Your task to perform on an android device: open a new tab in the chrome app Image 0: 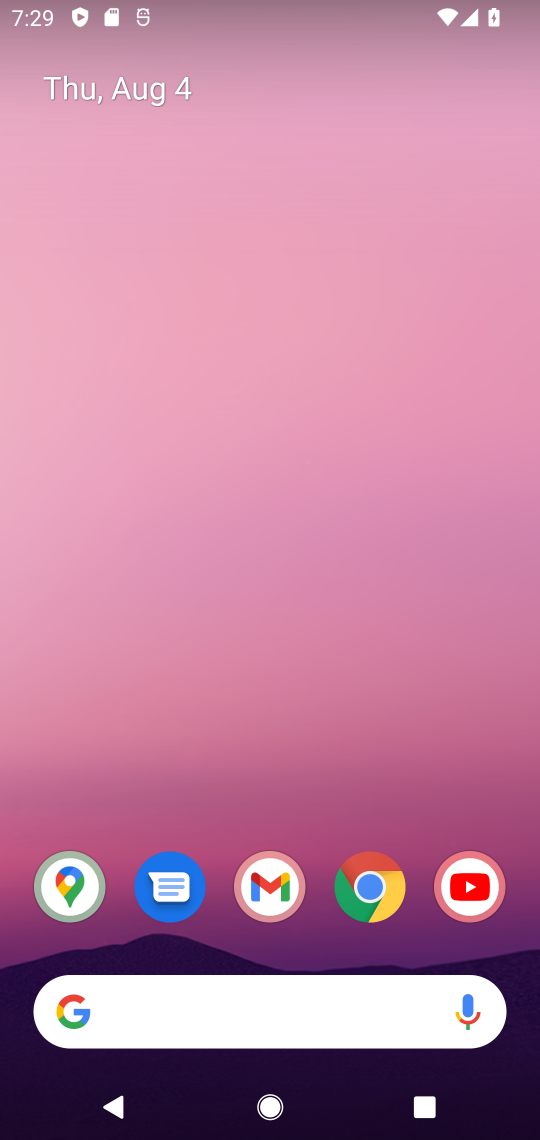
Step 0: click (379, 876)
Your task to perform on an android device: open a new tab in the chrome app Image 1: 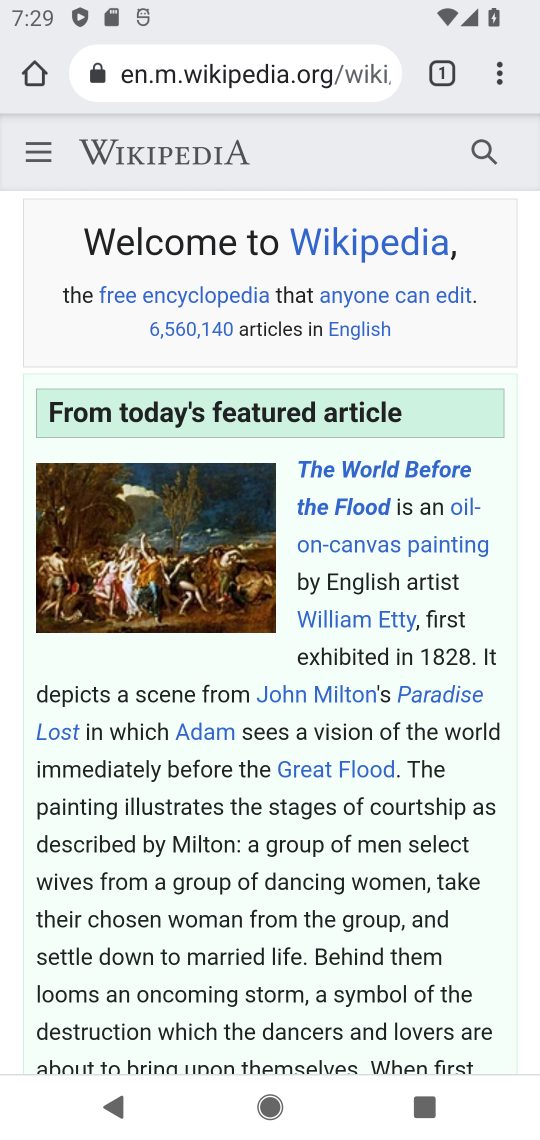
Step 1: click (489, 159)
Your task to perform on an android device: open a new tab in the chrome app Image 2: 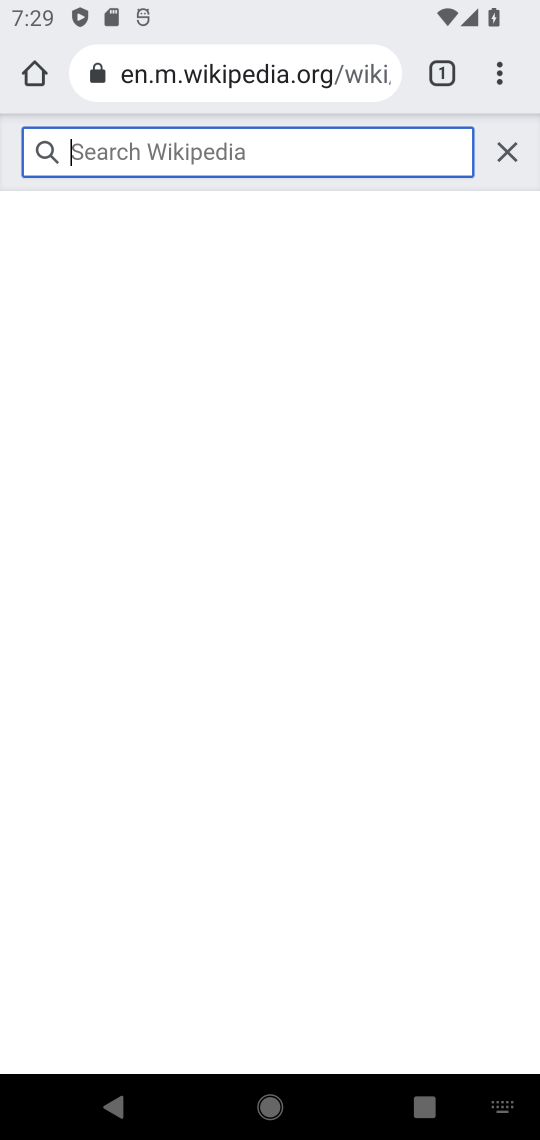
Step 2: click (498, 74)
Your task to perform on an android device: open a new tab in the chrome app Image 3: 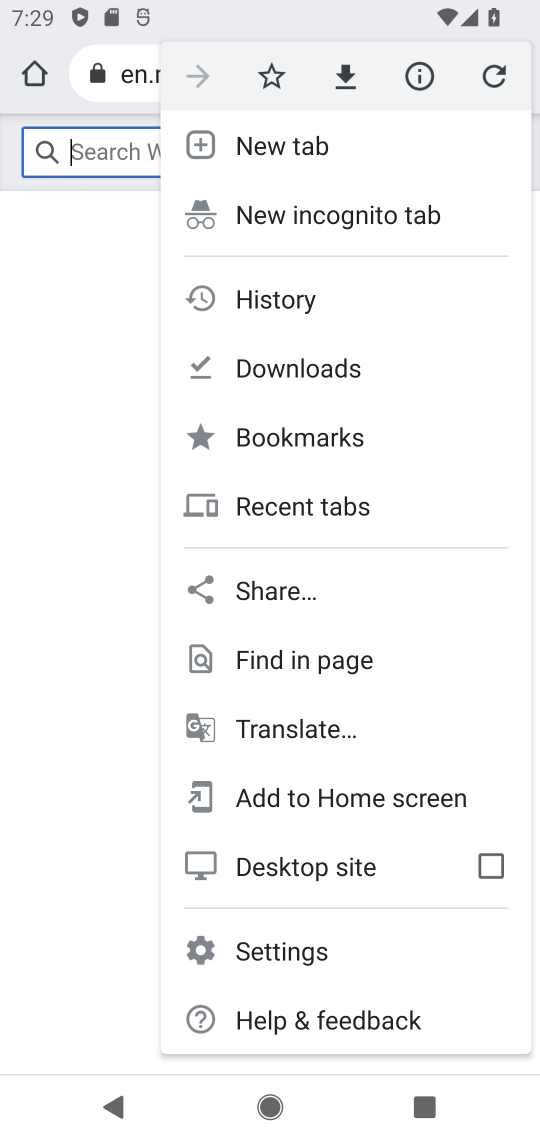
Step 3: click (246, 150)
Your task to perform on an android device: open a new tab in the chrome app Image 4: 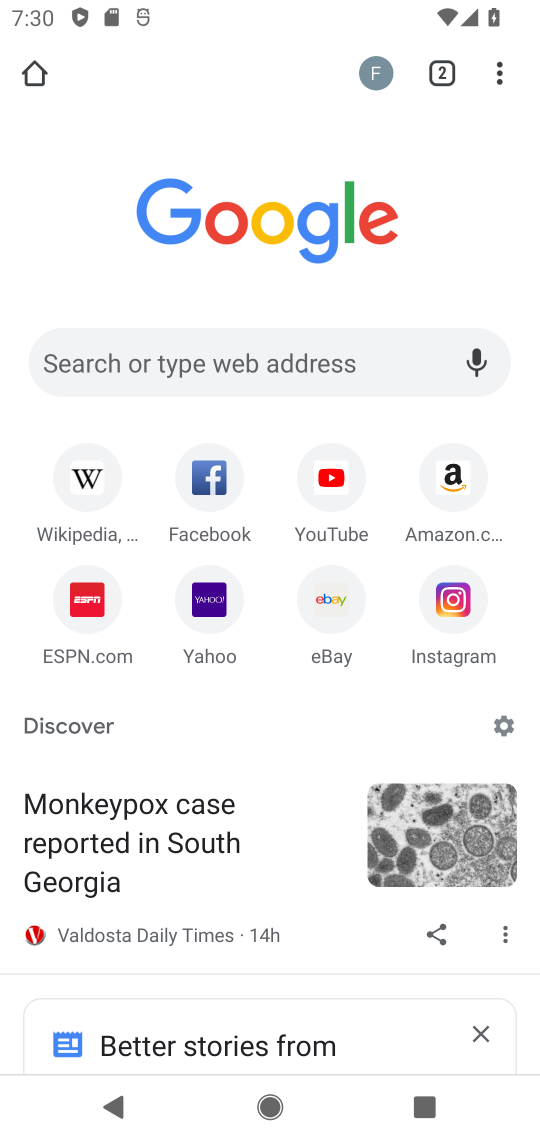
Step 4: task complete